Your task to perform on an android device: manage bookmarks in the chrome app Image 0: 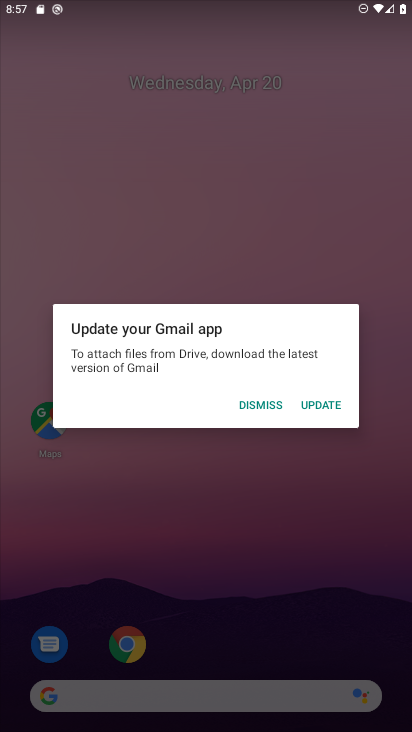
Step 0: press home button
Your task to perform on an android device: manage bookmarks in the chrome app Image 1: 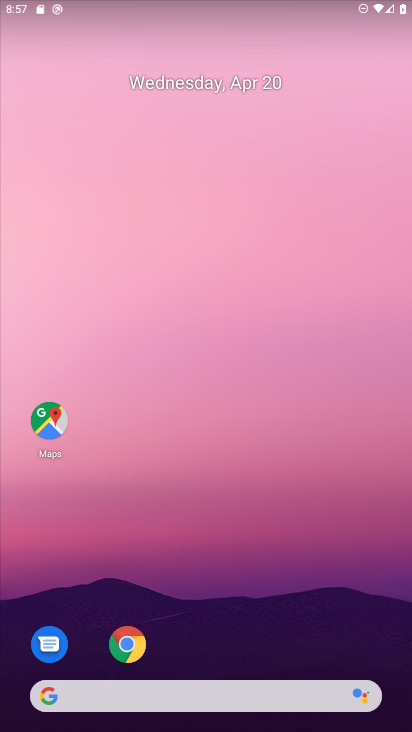
Step 1: drag from (341, 625) to (250, 150)
Your task to perform on an android device: manage bookmarks in the chrome app Image 2: 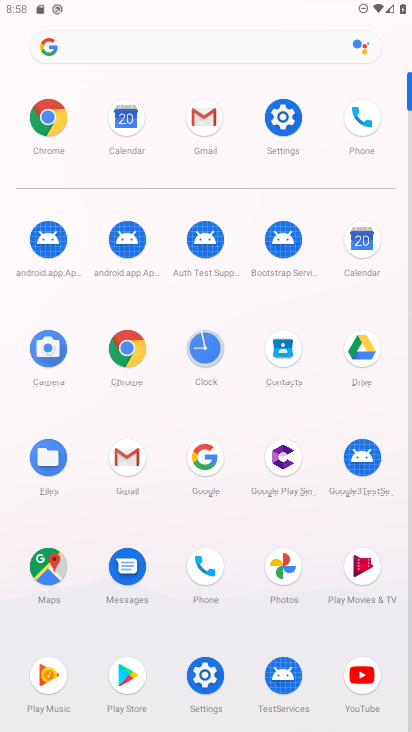
Step 2: click (123, 357)
Your task to perform on an android device: manage bookmarks in the chrome app Image 3: 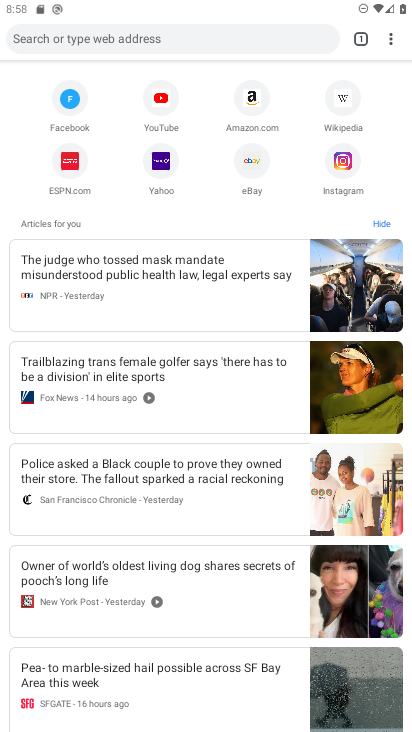
Step 3: click (398, 37)
Your task to perform on an android device: manage bookmarks in the chrome app Image 4: 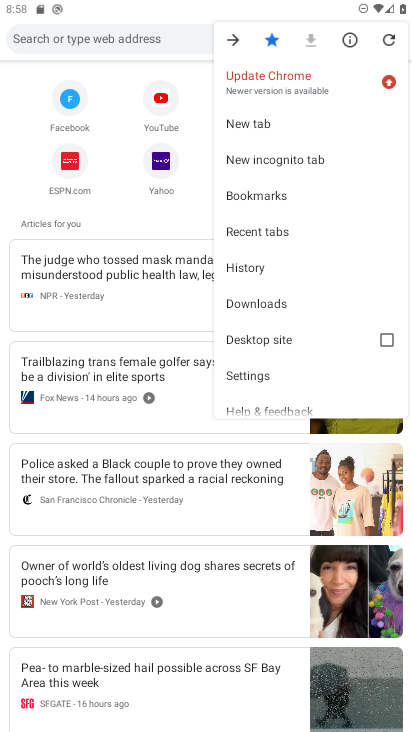
Step 4: click (298, 195)
Your task to perform on an android device: manage bookmarks in the chrome app Image 5: 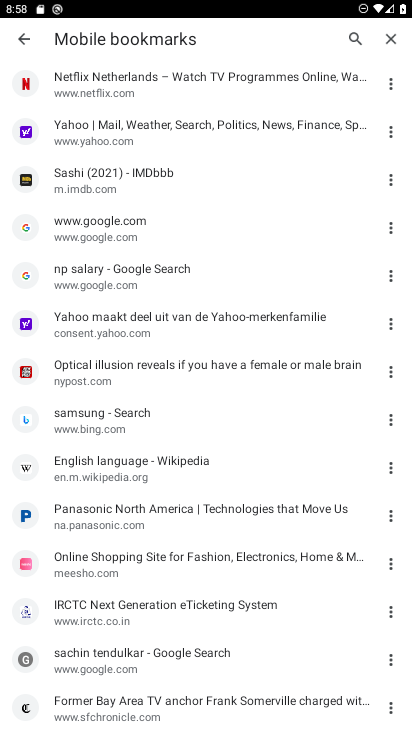
Step 5: click (391, 80)
Your task to perform on an android device: manage bookmarks in the chrome app Image 6: 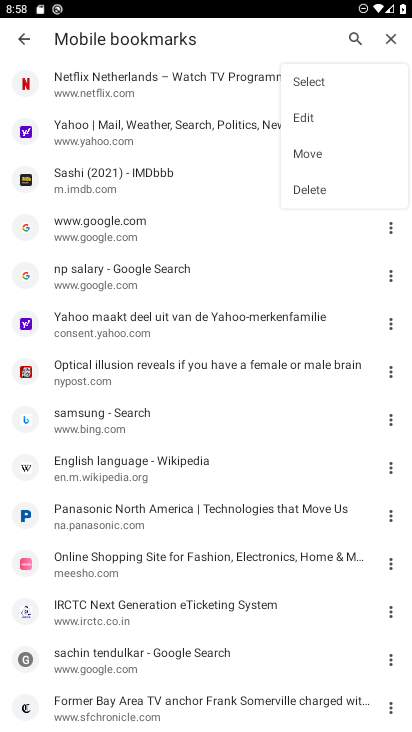
Step 6: task complete